Your task to perform on an android device: Show me popular videos on Youtube Image 0: 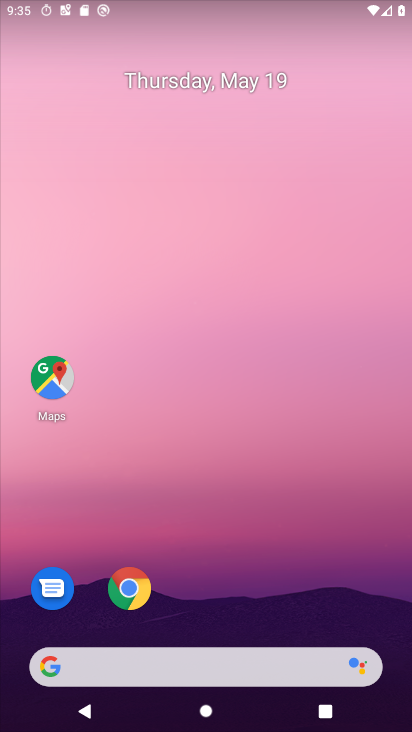
Step 0: press home button
Your task to perform on an android device: Show me popular videos on Youtube Image 1: 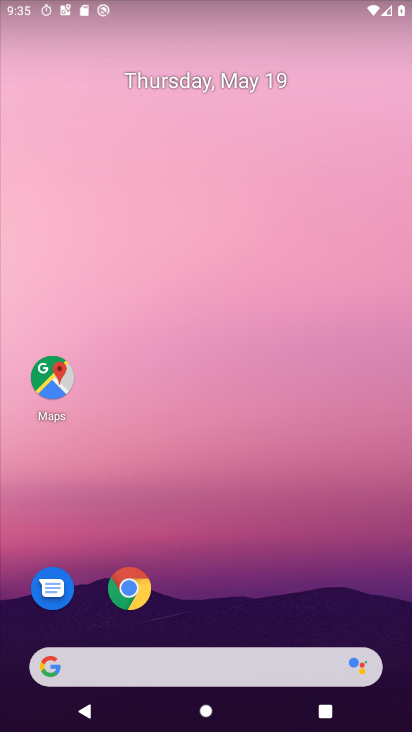
Step 1: drag from (171, 660) to (307, 92)
Your task to perform on an android device: Show me popular videos on Youtube Image 2: 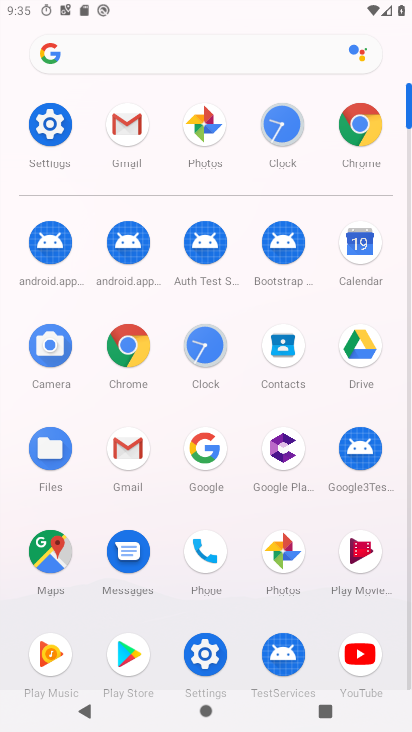
Step 2: click (363, 654)
Your task to perform on an android device: Show me popular videos on Youtube Image 3: 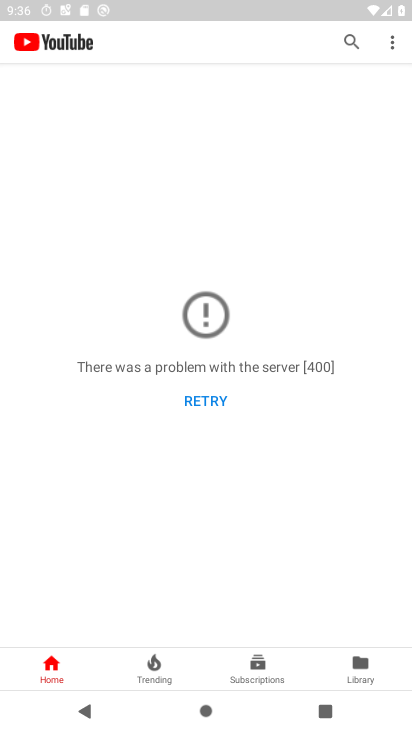
Step 3: click (203, 401)
Your task to perform on an android device: Show me popular videos on Youtube Image 4: 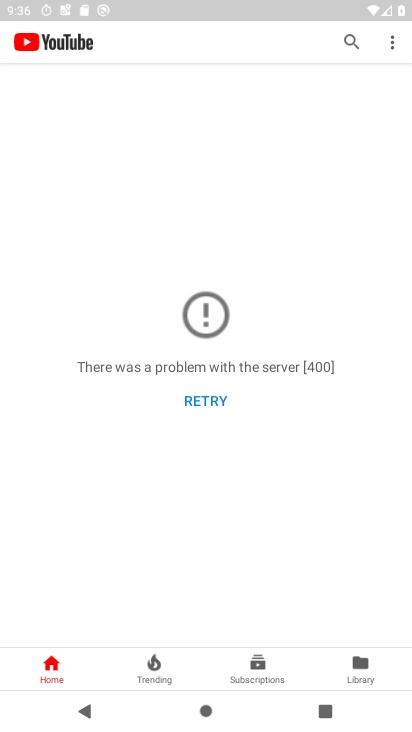
Step 4: click (209, 394)
Your task to perform on an android device: Show me popular videos on Youtube Image 5: 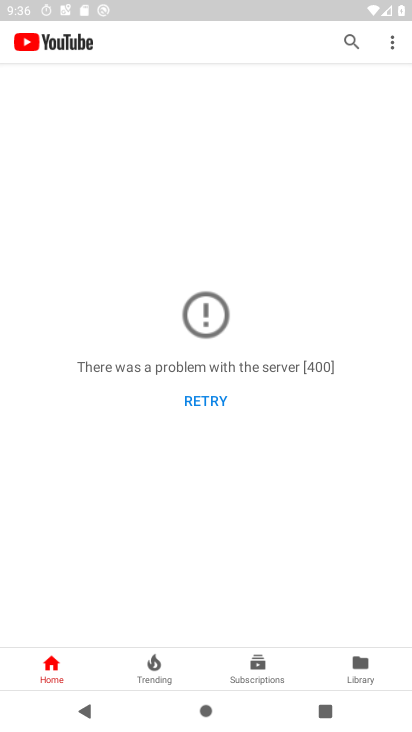
Step 5: click (212, 394)
Your task to perform on an android device: Show me popular videos on Youtube Image 6: 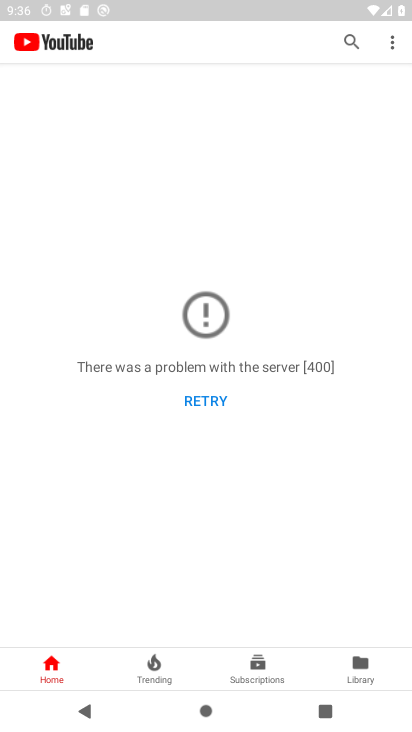
Step 6: click (209, 401)
Your task to perform on an android device: Show me popular videos on Youtube Image 7: 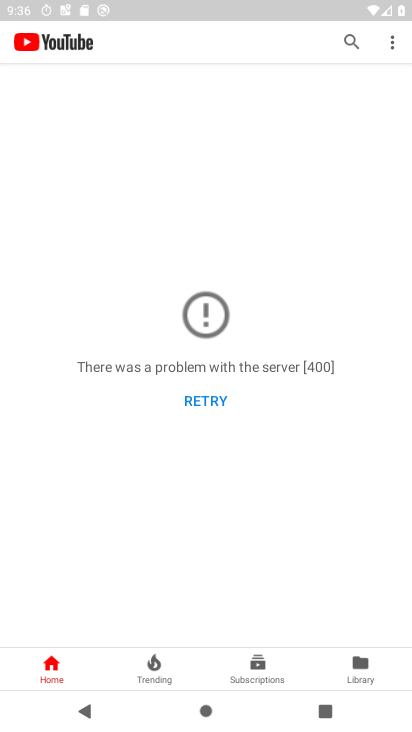
Step 7: click (203, 394)
Your task to perform on an android device: Show me popular videos on Youtube Image 8: 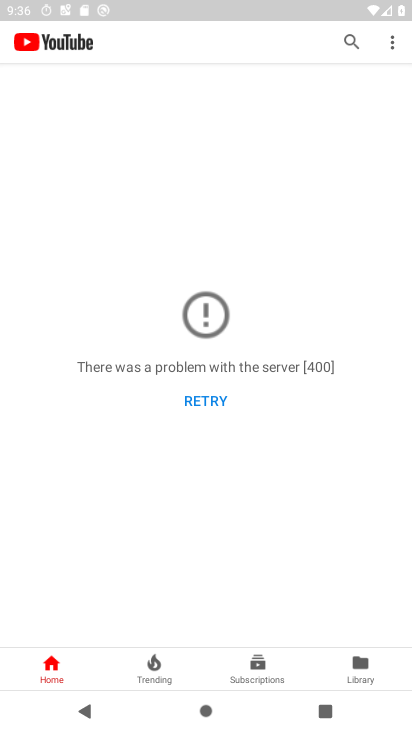
Step 8: click (201, 401)
Your task to perform on an android device: Show me popular videos on Youtube Image 9: 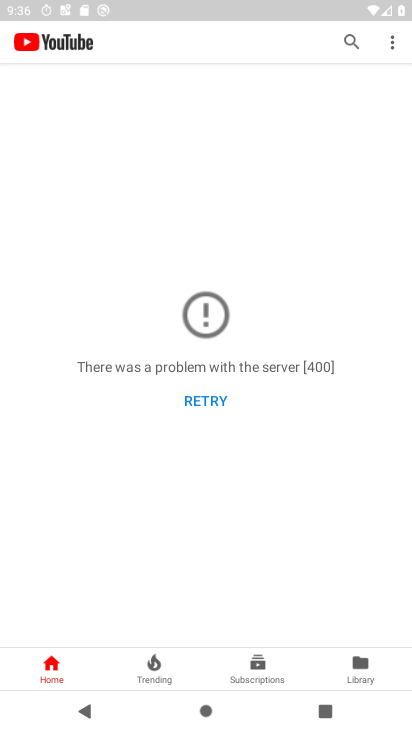
Step 9: click (202, 400)
Your task to perform on an android device: Show me popular videos on Youtube Image 10: 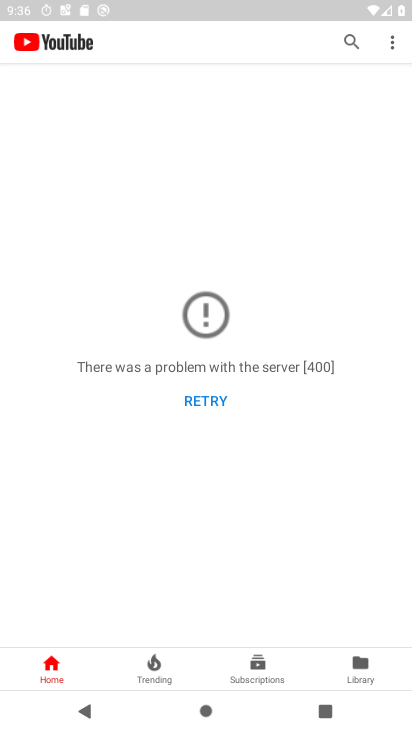
Step 10: task complete